Your task to perform on an android device: check the backup settings in the google photos Image 0: 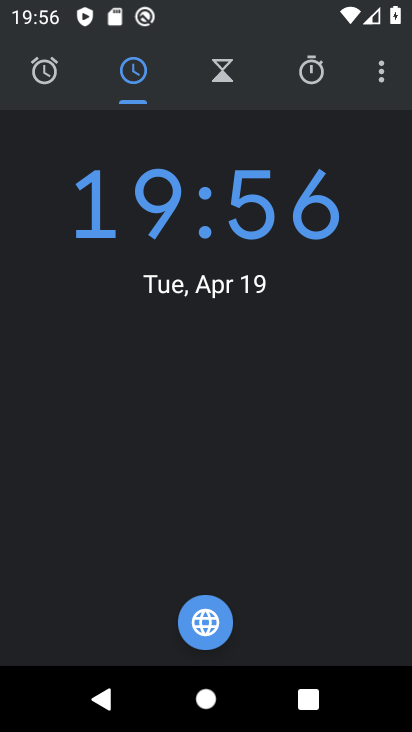
Step 0: press home button
Your task to perform on an android device: check the backup settings in the google photos Image 1: 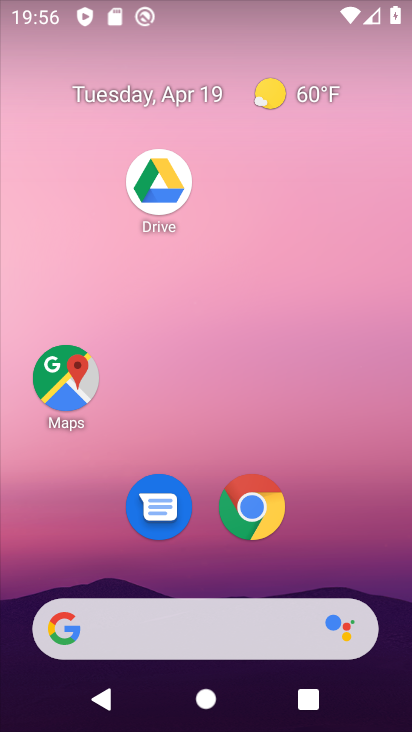
Step 1: drag from (339, 492) to (295, 142)
Your task to perform on an android device: check the backup settings in the google photos Image 2: 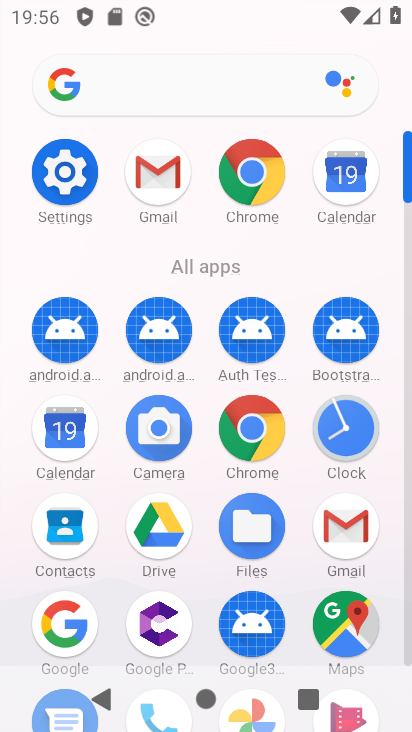
Step 2: drag from (203, 362) to (166, 188)
Your task to perform on an android device: check the backup settings in the google photos Image 3: 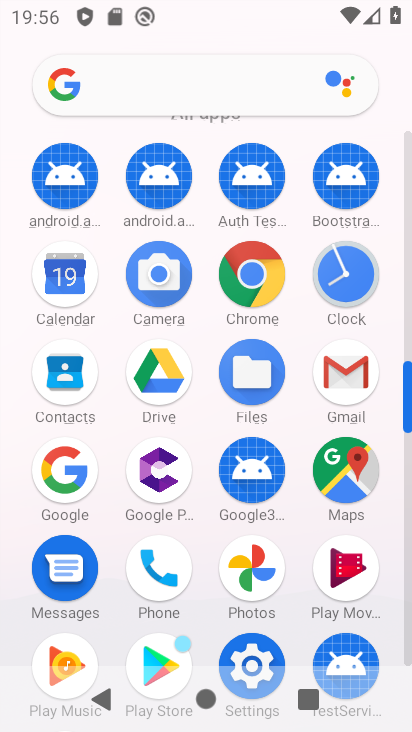
Step 3: click (238, 542)
Your task to perform on an android device: check the backup settings in the google photos Image 4: 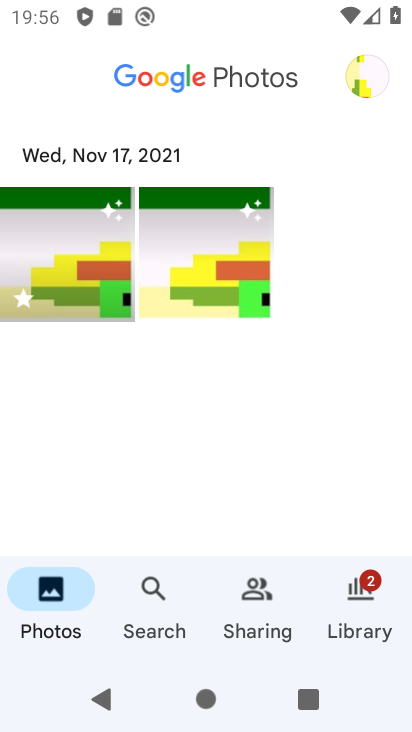
Step 4: click (361, 74)
Your task to perform on an android device: check the backup settings in the google photos Image 5: 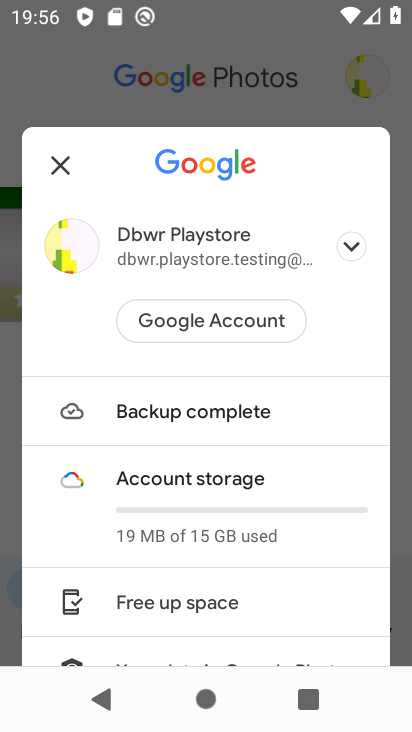
Step 5: drag from (267, 571) to (224, 180)
Your task to perform on an android device: check the backup settings in the google photos Image 6: 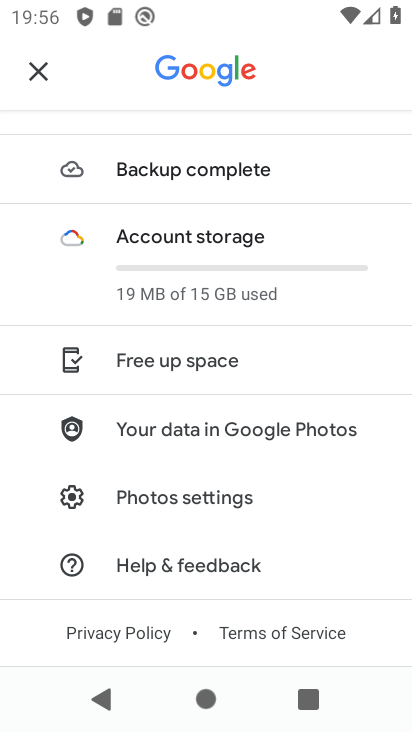
Step 6: click (246, 500)
Your task to perform on an android device: check the backup settings in the google photos Image 7: 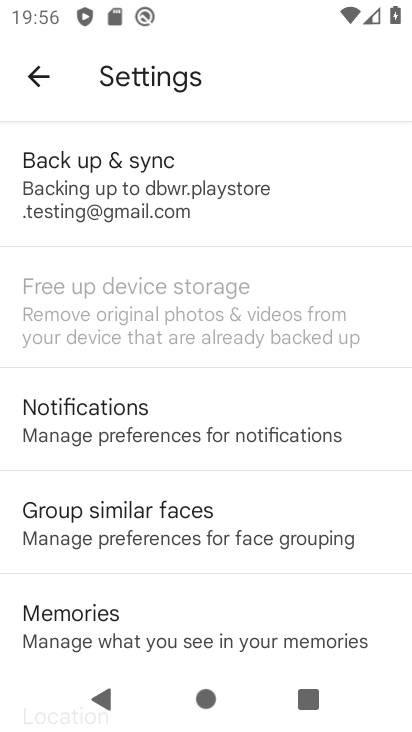
Step 7: click (127, 170)
Your task to perform on an android device: check the backup settings in the google photos Image 8: 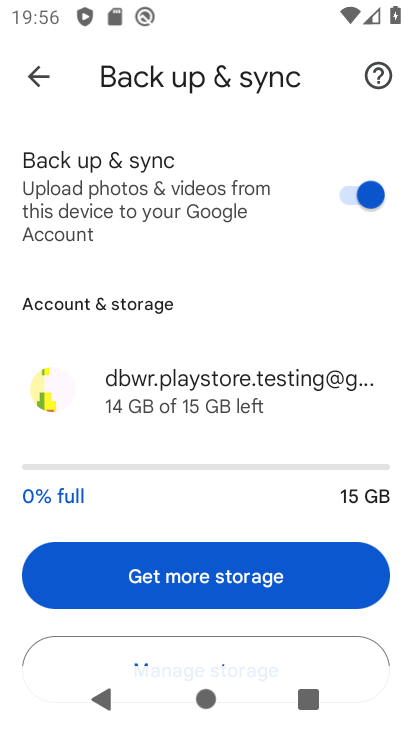
Step 8: task complete